Your task to perform on an android device: What's the weather going to be this weekend? Image 0: 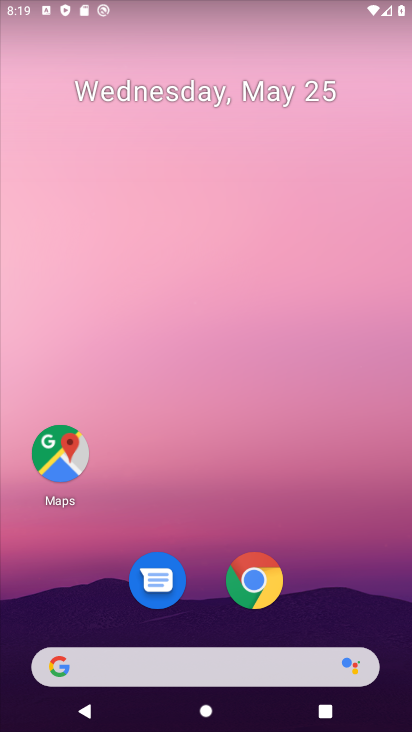
Step 0: click (260, 660)
Your task to perform on an android device: What's the weather going to be this weekend? Image 1: 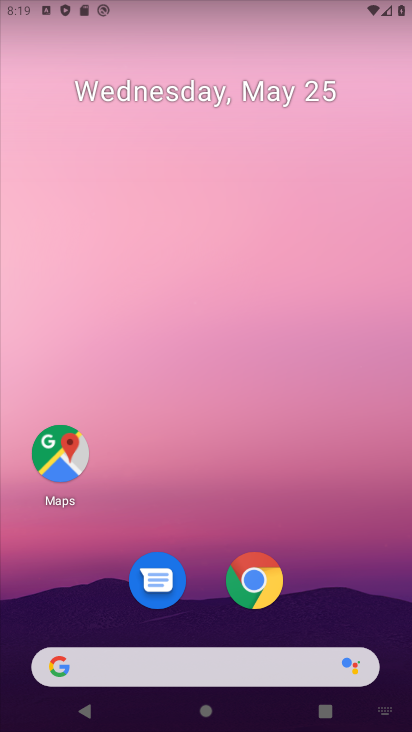
Step 1: click (155, 666)
Your task to perform on an android device: What's the weather going to be this weekend? Image 2: 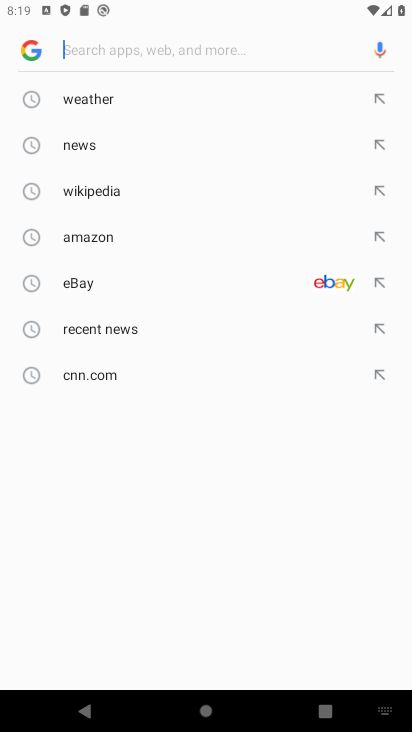
Step 2: click (120, 106)
Your task to perform on an android device: What's the weather going to be this weekend? Image 3: 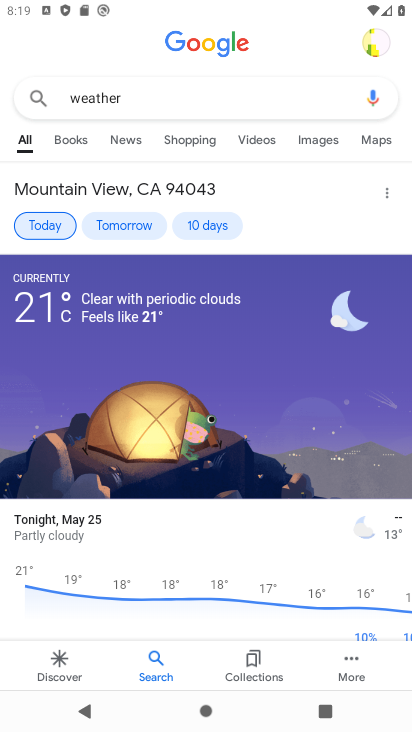
Step 3: click (207, 232)
Your task to perform on an android device: What's the weather going to be this weekend? Image 4: 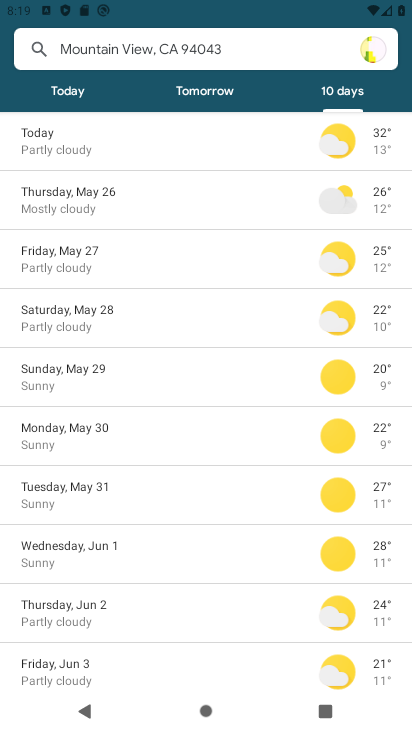
Step 4: task complete